Your task to perform on an android device: Check the news Image 0: 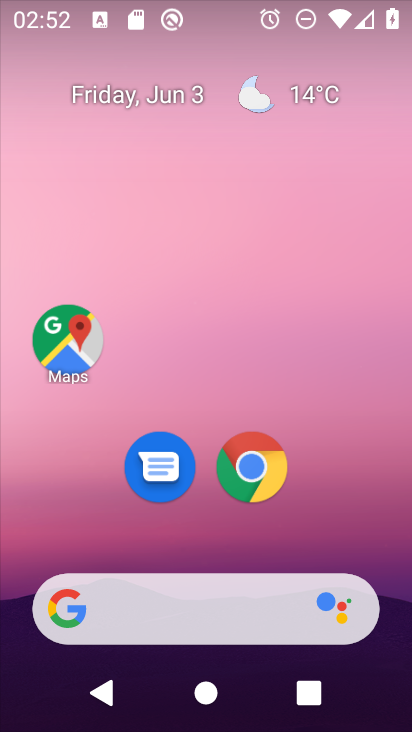
Step 0: drag from (10, 241) to (300, 233)
Your task to perform on an android device: Check the news Image 1: 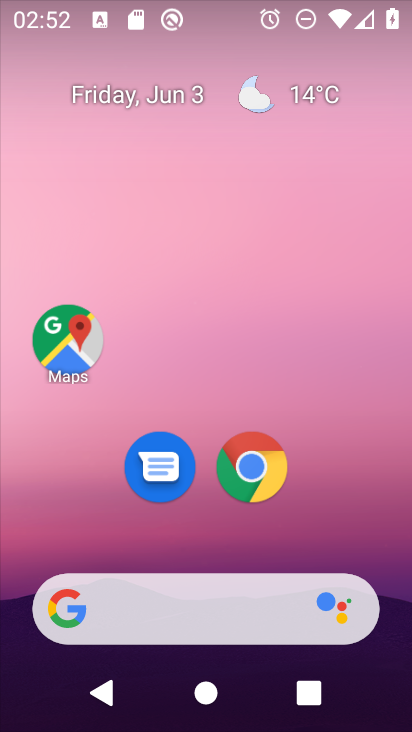
Step 1: drag from (10, 438) to (346, 377)
Your task to perform on an android device: Check the news Image 2: 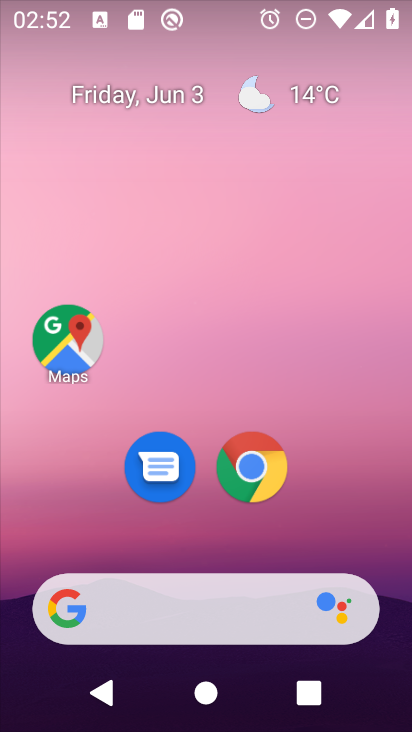
Step 2: click (183, 609)
Your task to perform on an android device: Check the news Image 3: 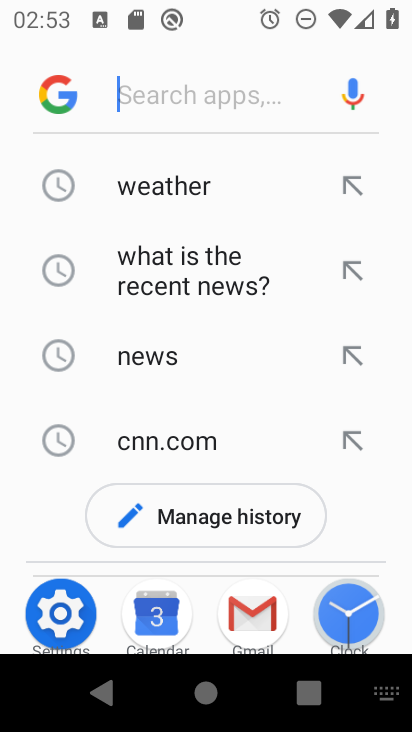
Step 3: click (147, 347)
Your task to perform on an android device: Check the news Image 4: 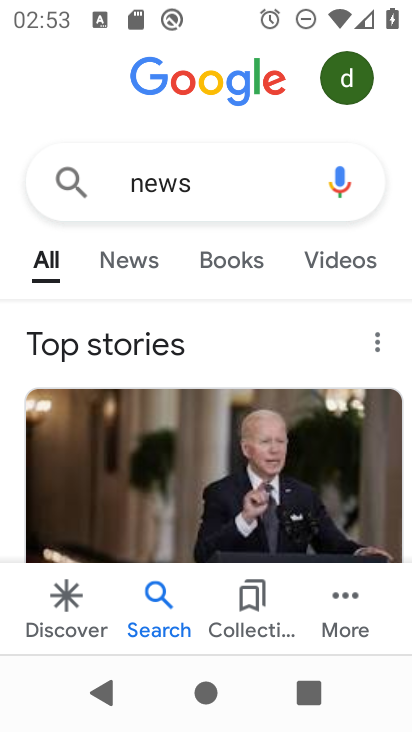
Step 4: click (204, 72)
Your task to perform on an android device: Check the news Image 5: 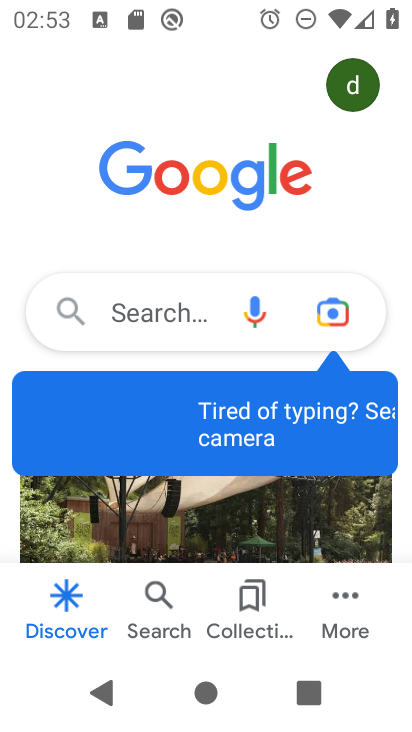
Step 5: task complete